Your task to perform on an android device: turn off smart reply in the gmail app Image 0: 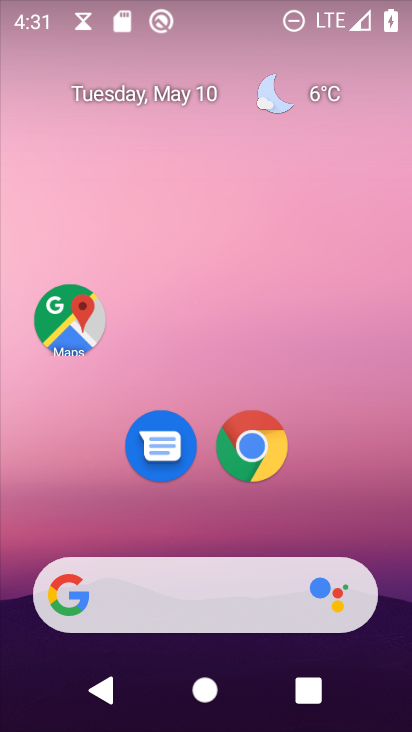
Step 0: drag from (292, 518) to (253, 118)
Your task to perform on an android device: turn off smart reply in the gmail app Image 1: 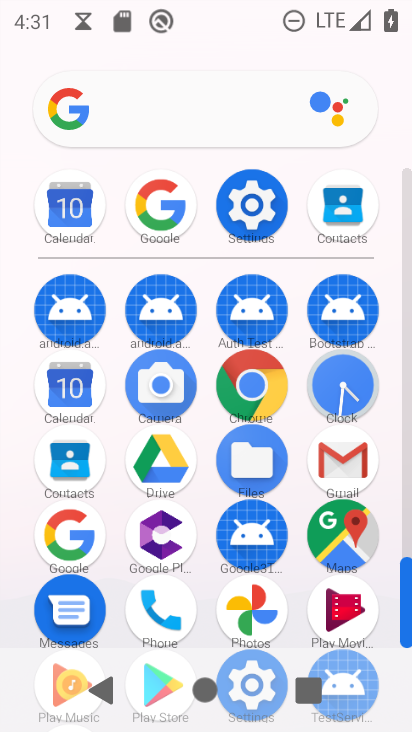
Step 1: click (355, 458)
Your task to perform on an android device: turn off smart reply in the gmail app Image 2: 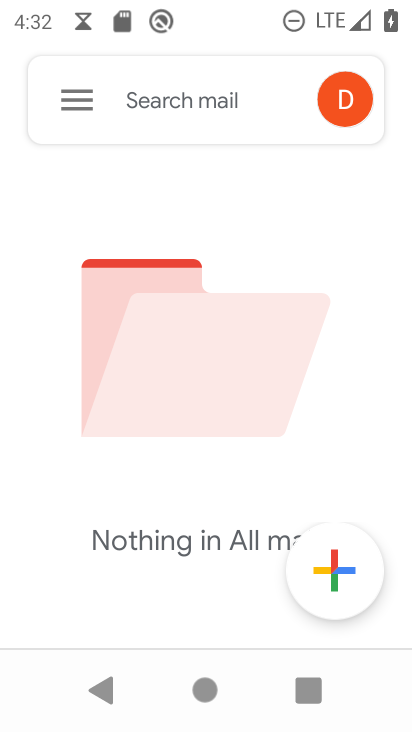
Step 2: click (83, 97)
Your task to perform on an android device: turn off smart reply in the gmail app Image 3: 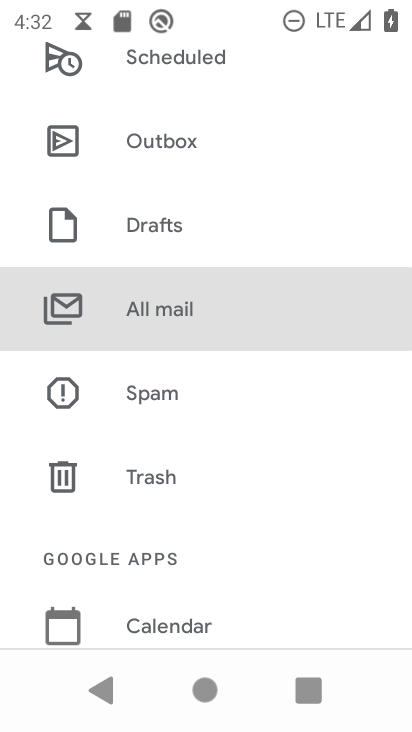
Step 3: drag from (211, 599) to (190, 102)
Your task to perform on an android device: turn off smart reply in the gmail app Image 4: 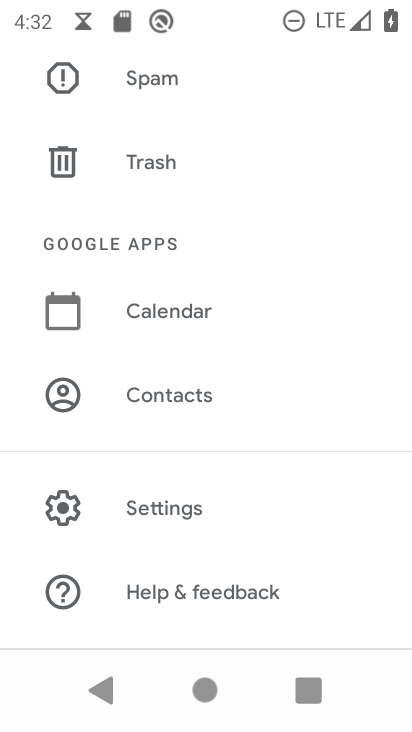
Step 4: click (210, 513)
Your task to perform on an android device: turn off smart reply in the gmail app Image 5: 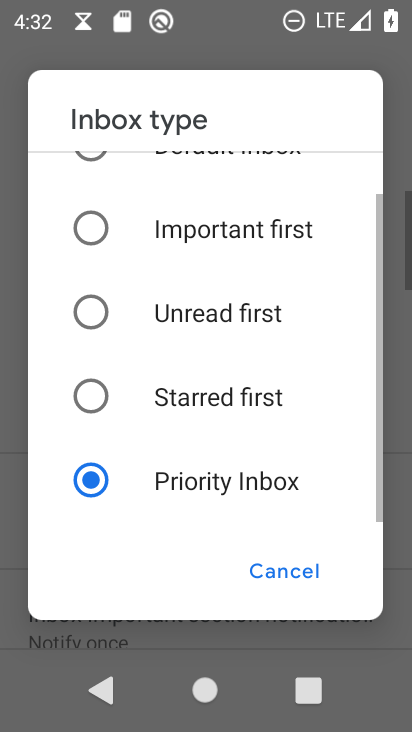
Step 5: click (282, 560)
Your task to perform on an android device: turn off smart reply in the gmail app Image 6: 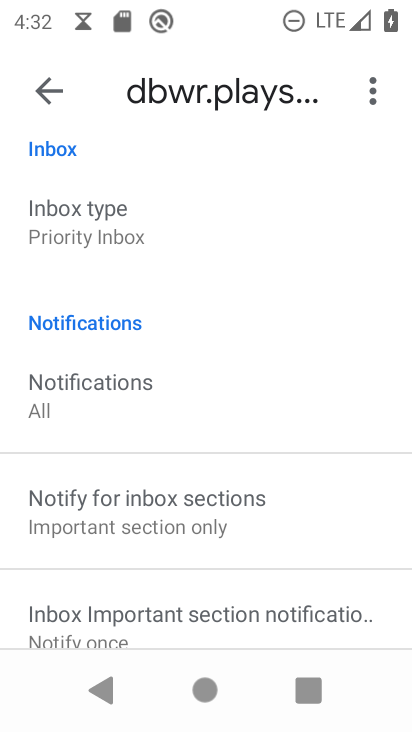
Step 6: drag from (157, 576) to (222, 109)
Your task to perform on an android device: turn off smart reply in the gmail app Image 7: 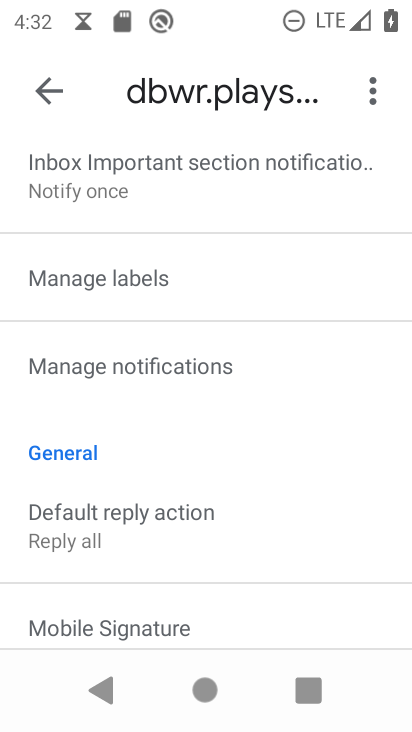
Step 7: drag from (175, 566) to (246, 192)
Your task to perform on an android device: turn off smart reply in the gmail app Image 8: 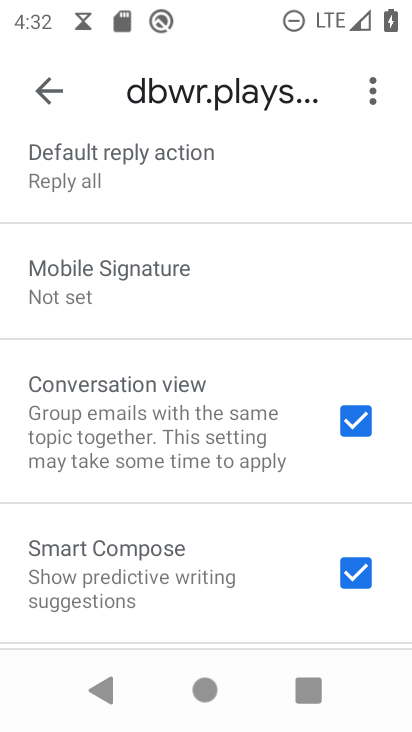
Step 8: drag from (122, 545) to (179, 258)
Your task to perform on an android device: turn off smart reply in the gmail app Image 9: 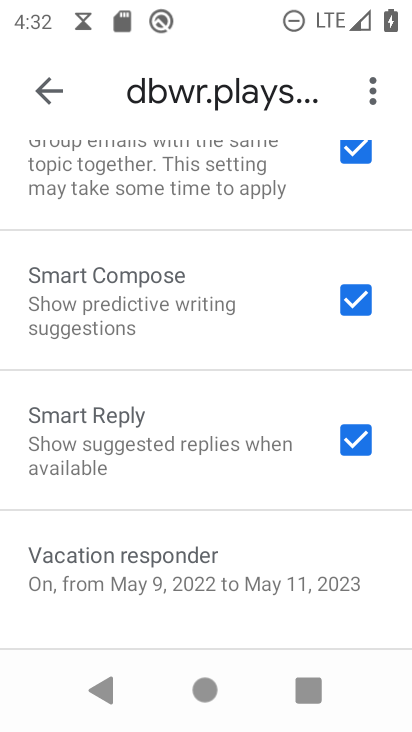
Step 9: click (357, 441)
Your task to perform on an android device: turn off smart reply in the gmail app Image 10: 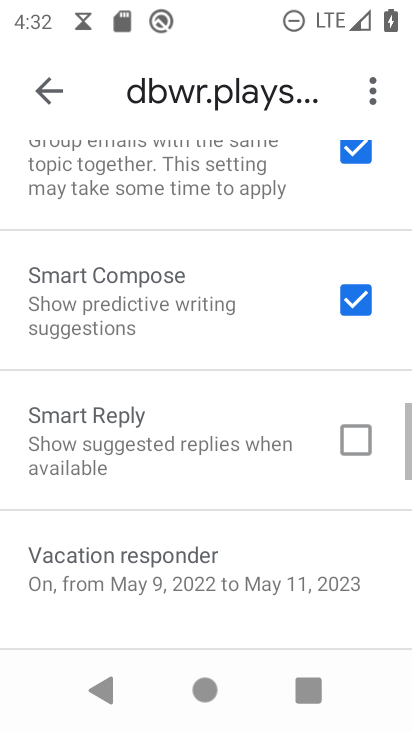
Step 10: task complete